Your task to perform on an android device: Search for the best rated wireless headphones on Amazon. Image 0: 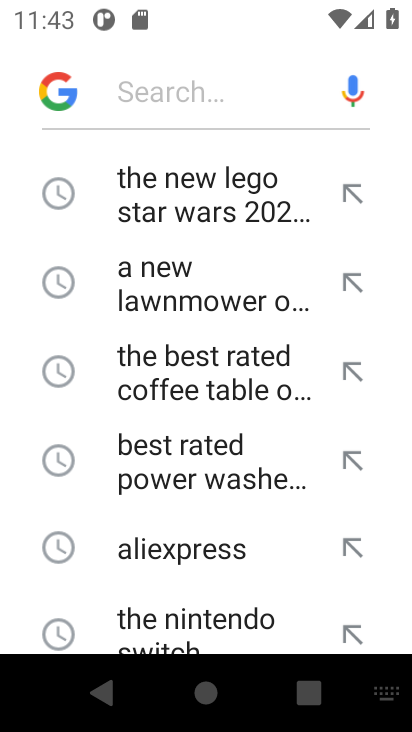
Step 0: press home button
Your task to perform on an android device: Search for the best rated wireless headphones on Amazon. Image 1: 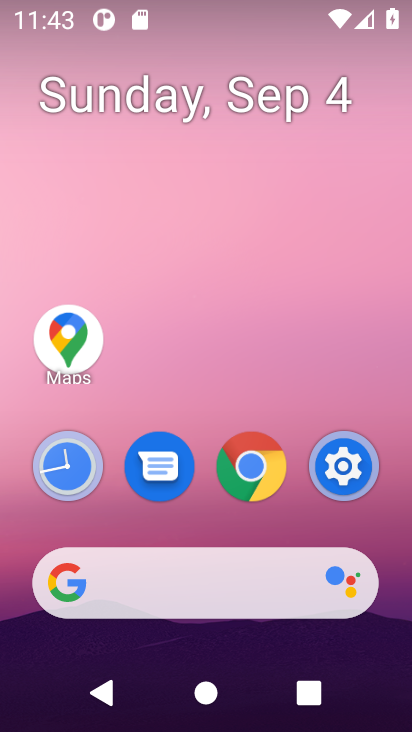
Step 1: click (212, 576)
Your task to perform on an android device: Search for the best rated wireless headphones on Amazon. Image 2: 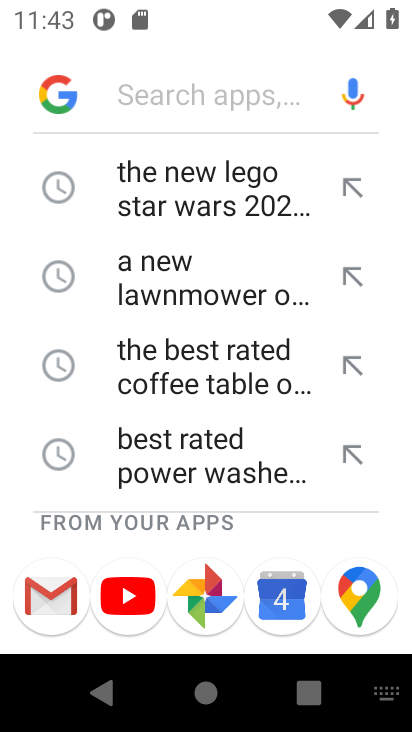
Step 2: type "the best rated wireless headphones on Amazon."
Your task to perform on an android device: Search for the best rated wireless headphones on Amazon. Image 3: 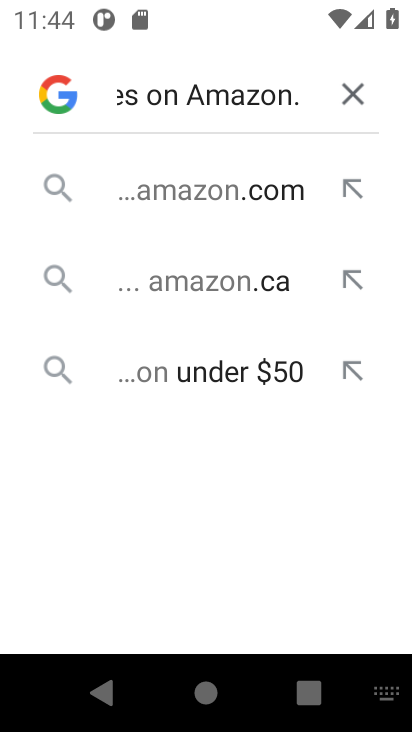
Step 3: click (355, 99)
Your task to perform on an android device: Search for the best rated wireless headphones on Amazon. Image 4: 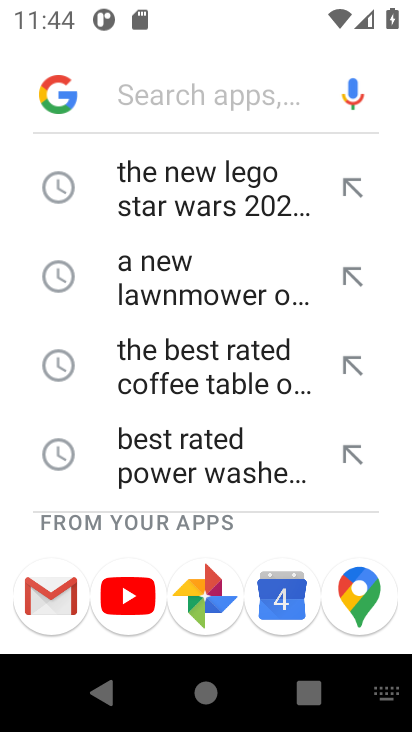
Step 4: type "the best rated wireless headphones on Amazon."
Your task to perform on an android device: Search for the best rated wireless headphones on Amazon. Image 5: 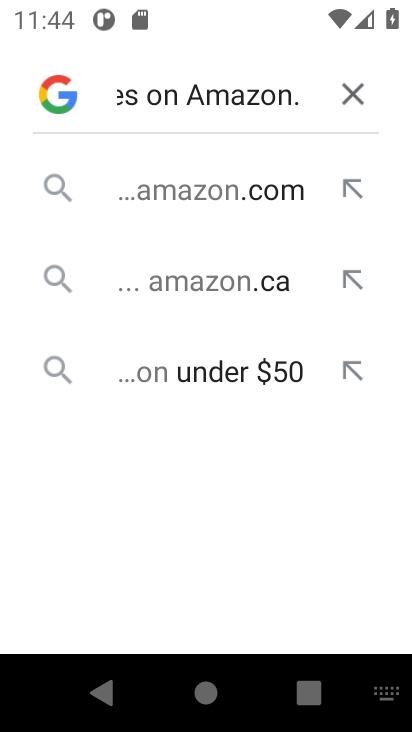
Step 5: click (205, 190)
Your task to perform on an android device: Search for the best rated wireless headphones on Amazon. Image 6: 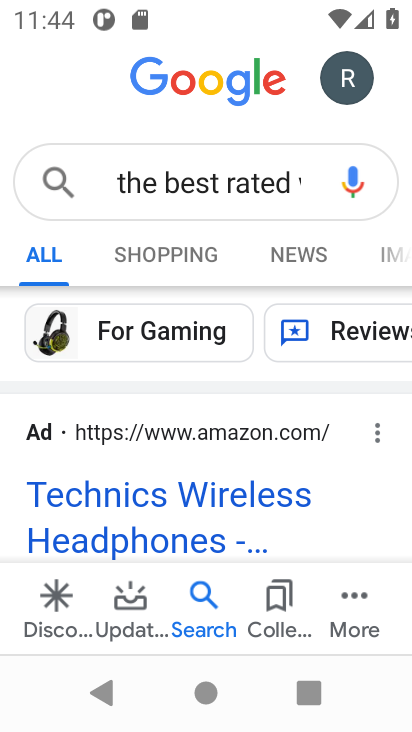
Step 6: task complete